Your task to perform on an android device: Go to privacy settings Image 0: 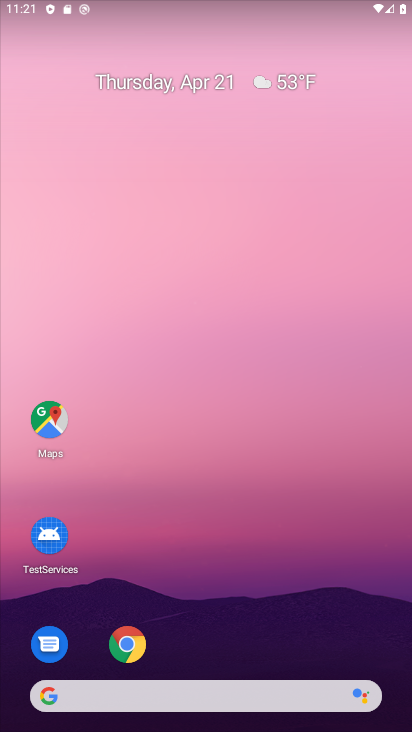
Step 0: drag from (291, 495) to (285, 111)
Your task to perform on an android device: Go to privacy settings Image 1: 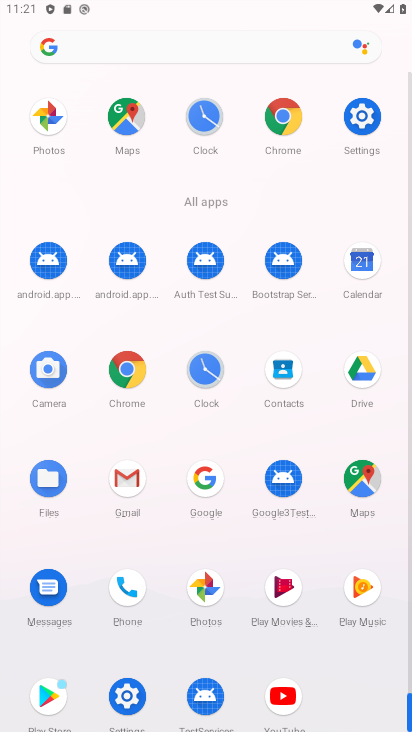
Step 1: click (362, 122)
Your task to perform on an android device: Go to privacy settings Image 2: 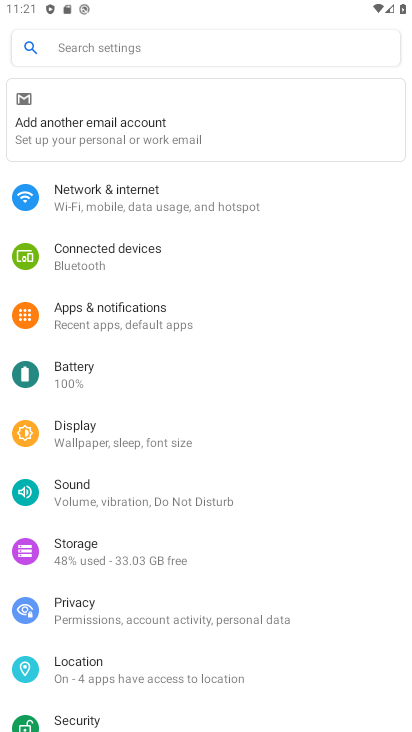
Step 2: drag from (139, 646) to (244, 195)
Your task to perform on an android device: Go to privacy settings Image 3: 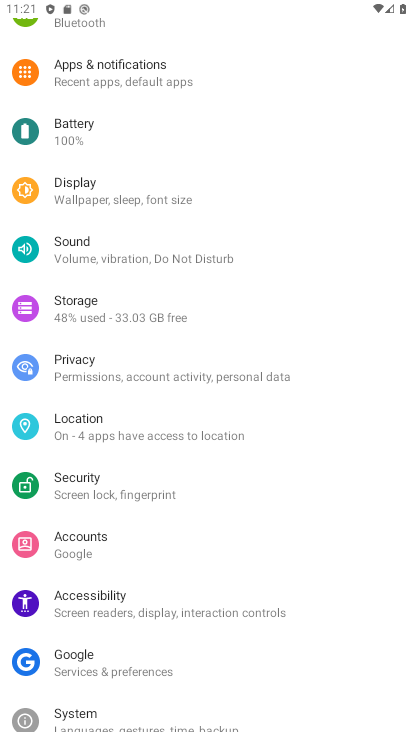
Step 3: drag from (165, 523) to (271, 184)
Your task to perform on an android device: Go to privacy settings Image 4: 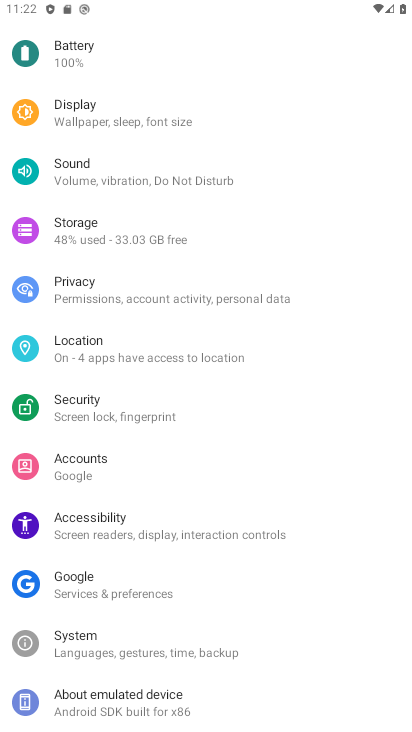
Step 4: click (64, 284)
Your task to perform on an android device: Go to privacy settings Image 5: 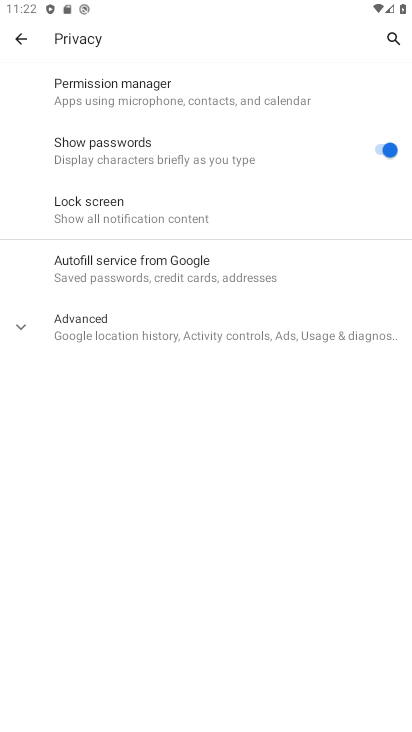
Step 5: task complete